Your task to perform on an android device: Go to calendar. Show me events next week Image 0: 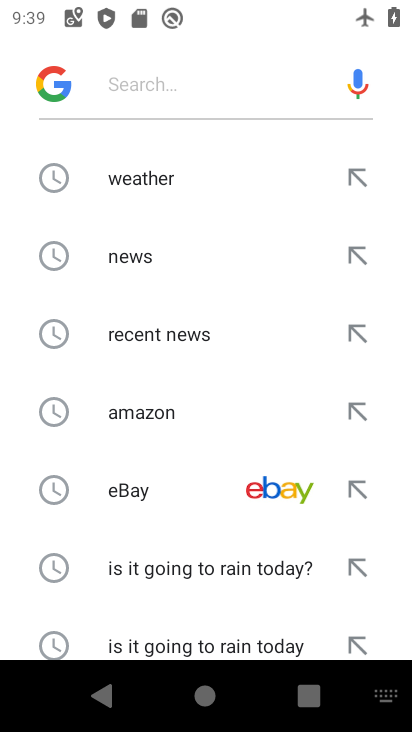
Step 0: press home button
Your task to perform on an android device: Go to calendar. Show me events next week Image 1: 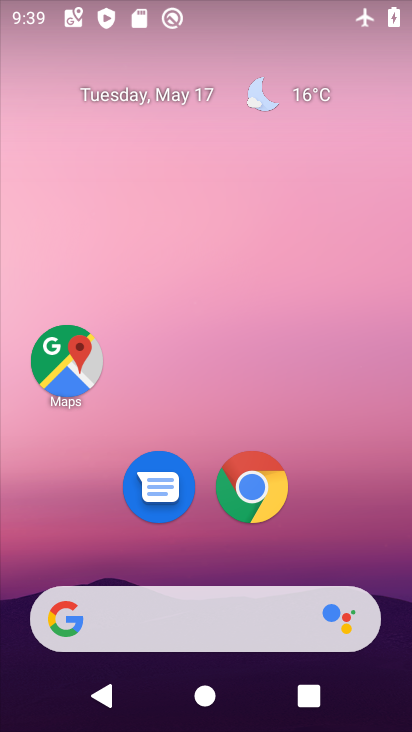
Step 1: drag from (211, 542) to (237, 161)
Your task to perform on an android device: Go to calendar. Show me events next week Image 2: 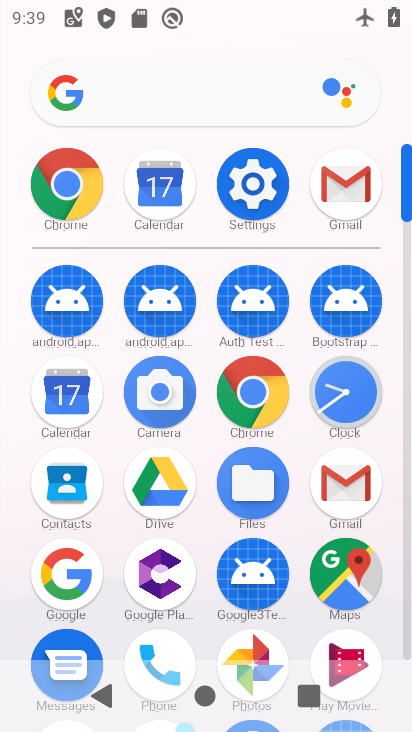
Step 2: click (69, 397)
Your task to perform on an android device: Go to calendar. Show me events next week Image 3: 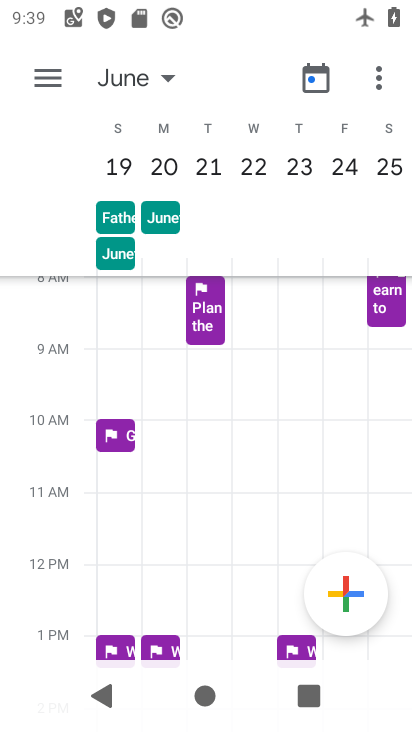
Step 3: drag from (112, 188) to (380, 194)
Your task to perform on an android device: Go to calendar. Show me events next week Image 4: 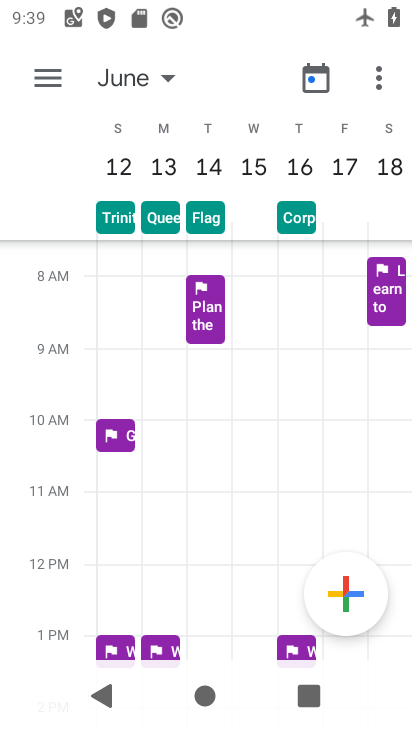
Step 4: drag from (122, 170) to (387, 172)
Your task to perform on an android device: Go to calendar. Show me events next week Image 5: 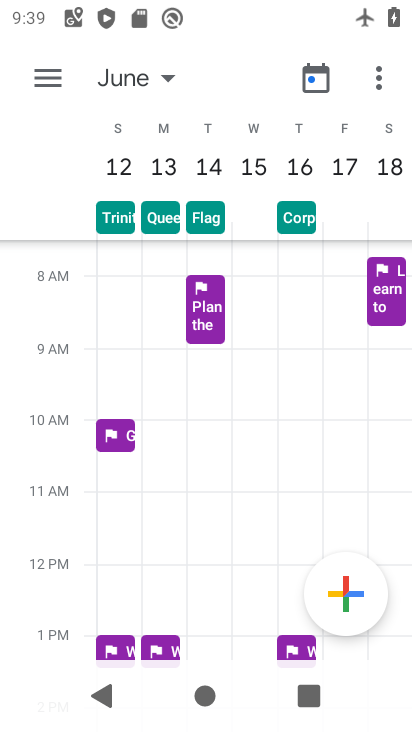
Step 5: drag from (152, 189) to (406, 178)
Your task to perform on an android device: Go to calendar. Show me events next week Image 6: 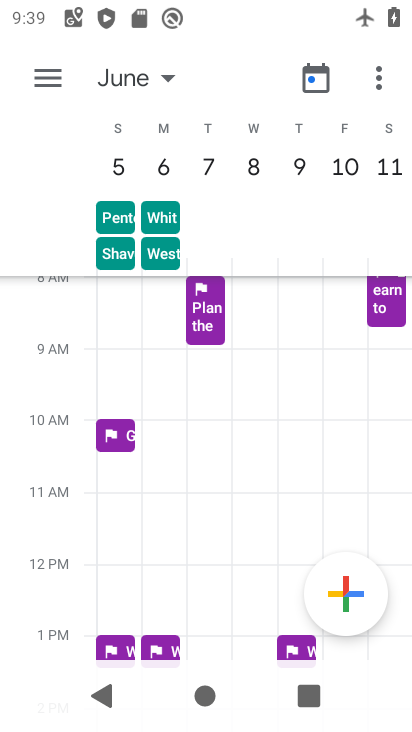
Step 6: drag from (132, 181) to (392, 222)
Your task to perform on an android device: Go to calendar. Show me events next week Image 7: 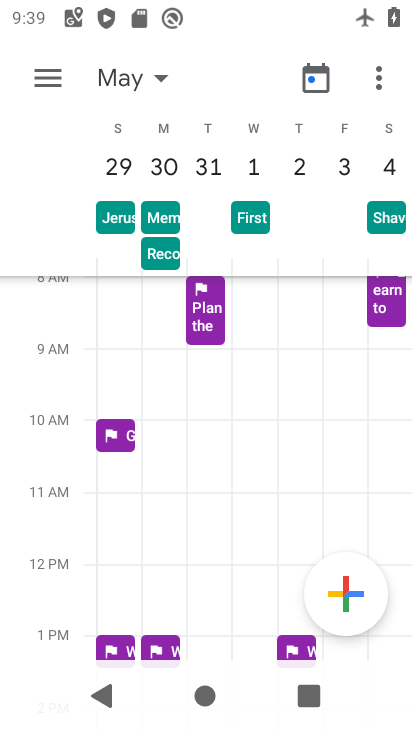
Step 7: drag from (341, 196) to (395, 204)
Your task to perform on an android device: Go to calendar. Show me events next week Image 8: 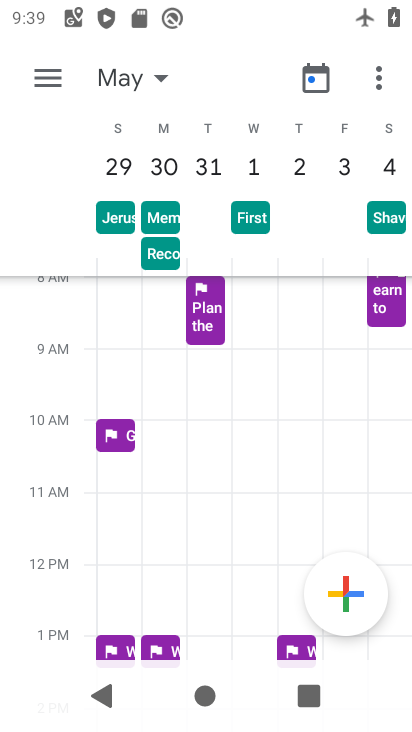
Step 8: drag from (128, 172) to (406, 194)
Your task to perform on an android device: Go to calendar. Show me events next week Image 9: 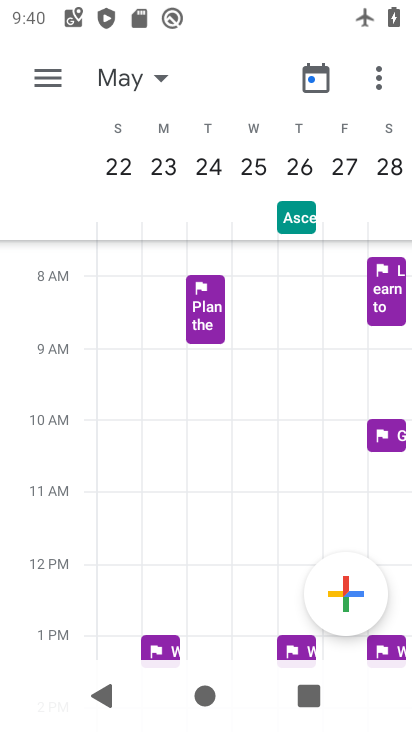
Step 9: drag from (126, 201) to (406, 215)
Your task to perform on an android device: Go to calendar. Show me events next week Image 10: 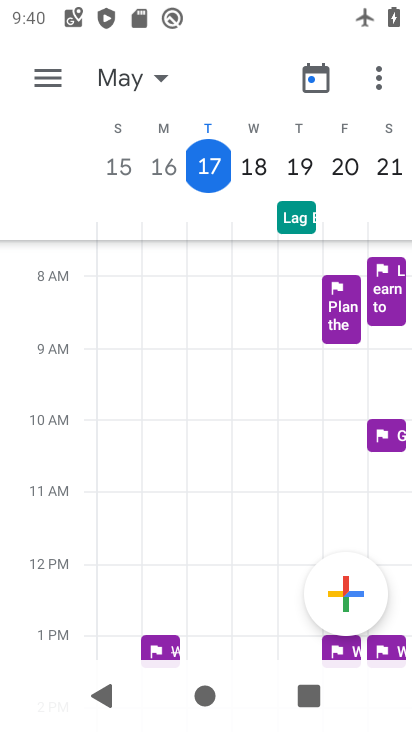
Step 10: click (49, 72)
Your task to perform on an android device: Go to calendar. Show me events next week Image 11: 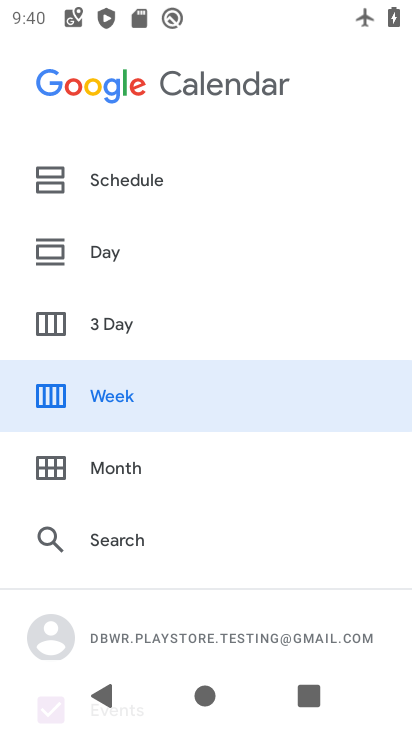
Step 11: drag from (151, 517) to (190, 208)
Your task to perform on an android device: Go to calendar. Show me events next week Image 12: 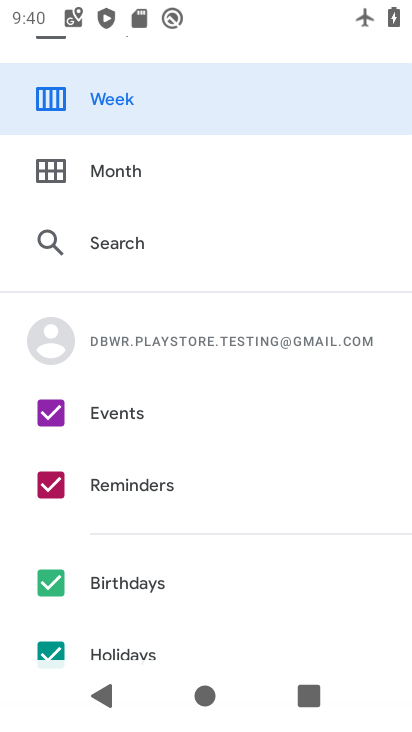
Step 12: click (49, 481)
Your task to perform on an android device: Go to calendar. Show me events next week Image 13: 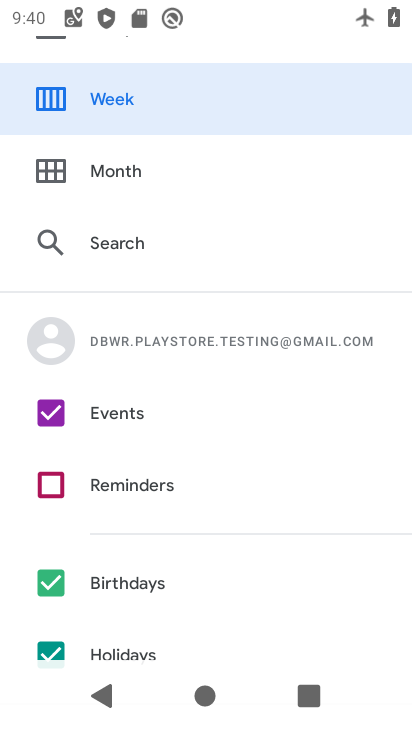
Step 13: click (55, 587)
Your task to perform on an android device: Go to calendar. Show me events next week Image 14: 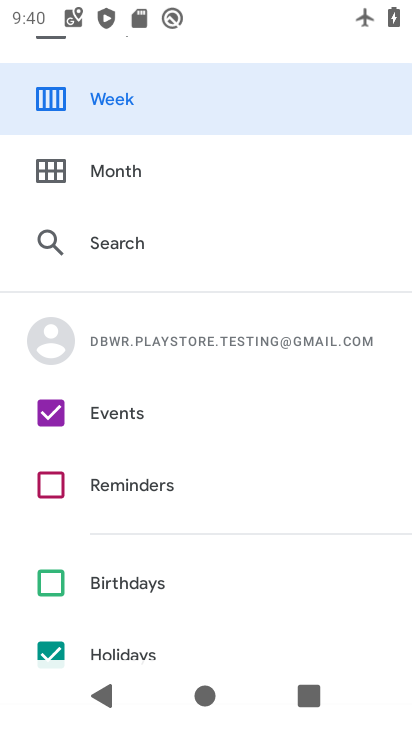
Step 14: drag from (145, 608) to (147, 397)
Your task to perform on an android device: Go to calendar. Show me events next week Image 15: 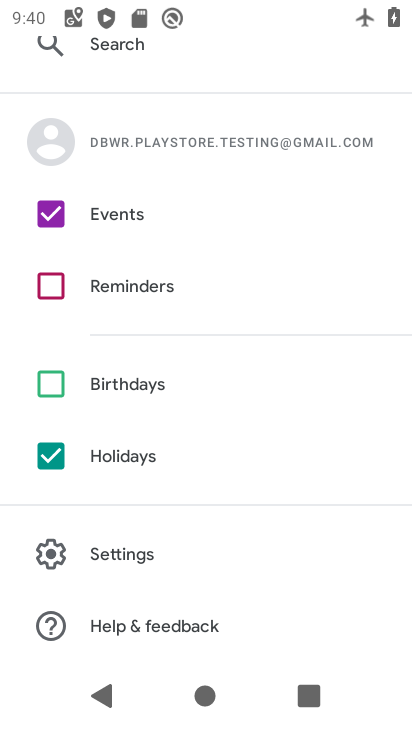
Step 15: click (117, 458)
Your task to perform on an android device: Go to calendar. Show me events next week Image 16: 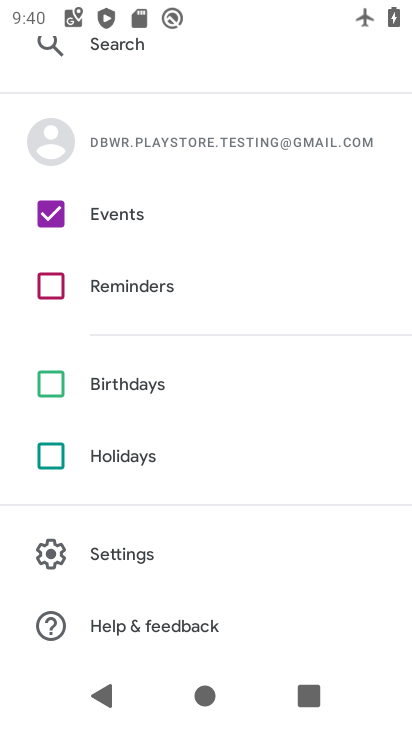
Step 16: drag from (245, 216) to (248, 566)
Your task to perform on an android device: Go to calendar. Show me events next week Image 17: 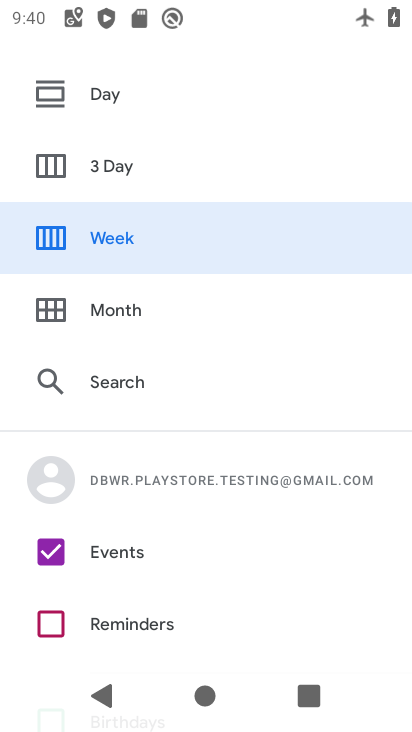
Step 17: click (158, 235)
Your task to perform on an android device: Go to calendar. Show me events next week Image 18: 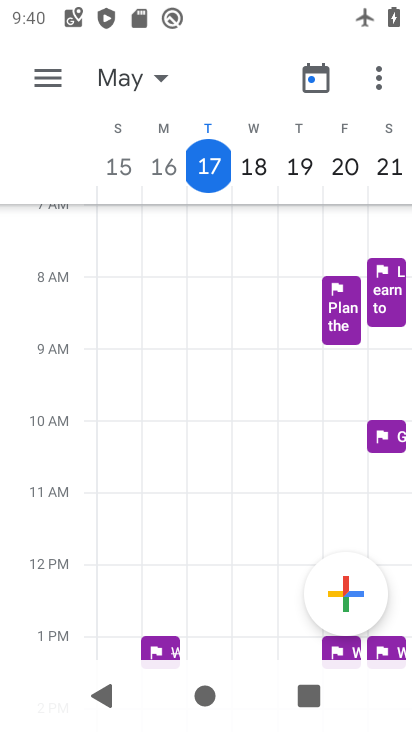
Step 18: task complete